Your task to perform on an android device: Go to Wikipedia Image 0: 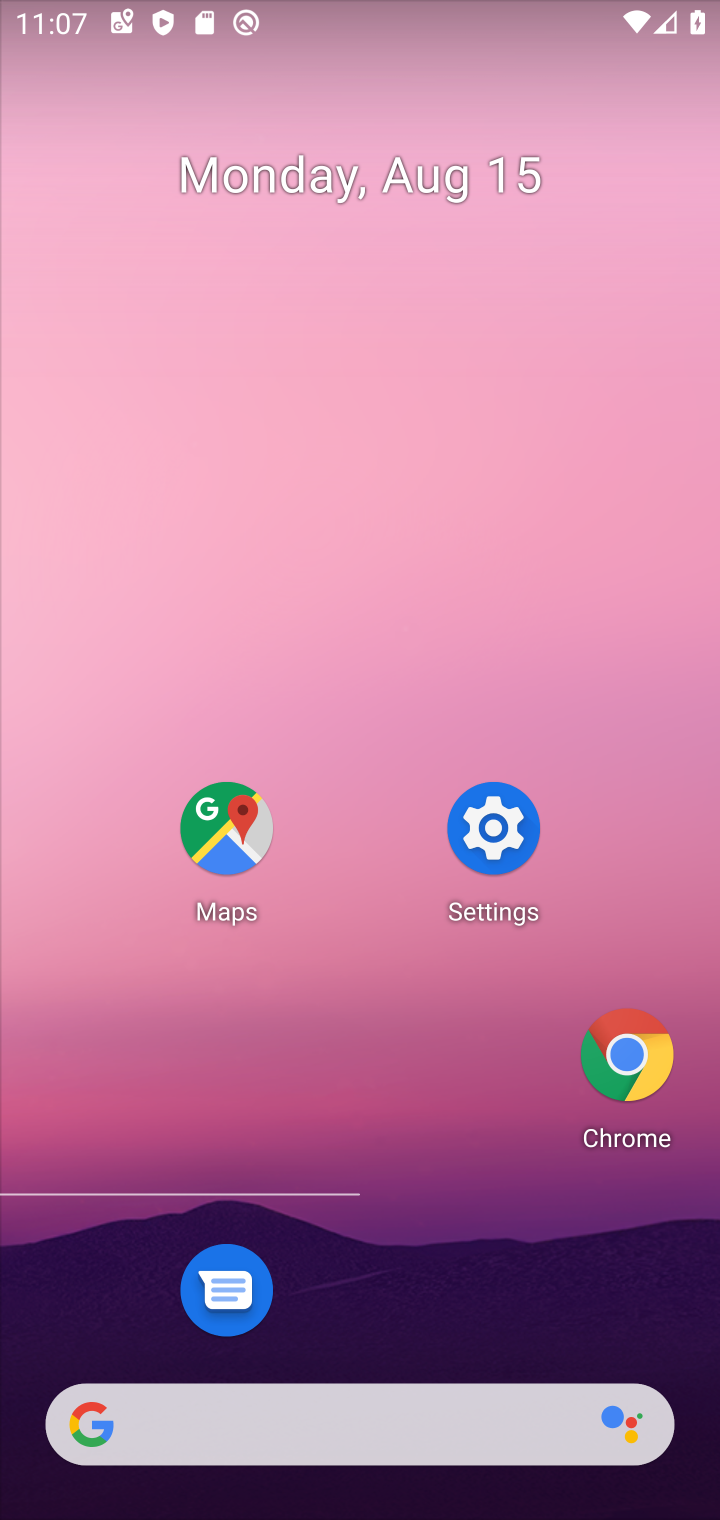
Step 0: click (627, 1070)
Your task to perform on an android device: Go to Wikipedia Image 1: 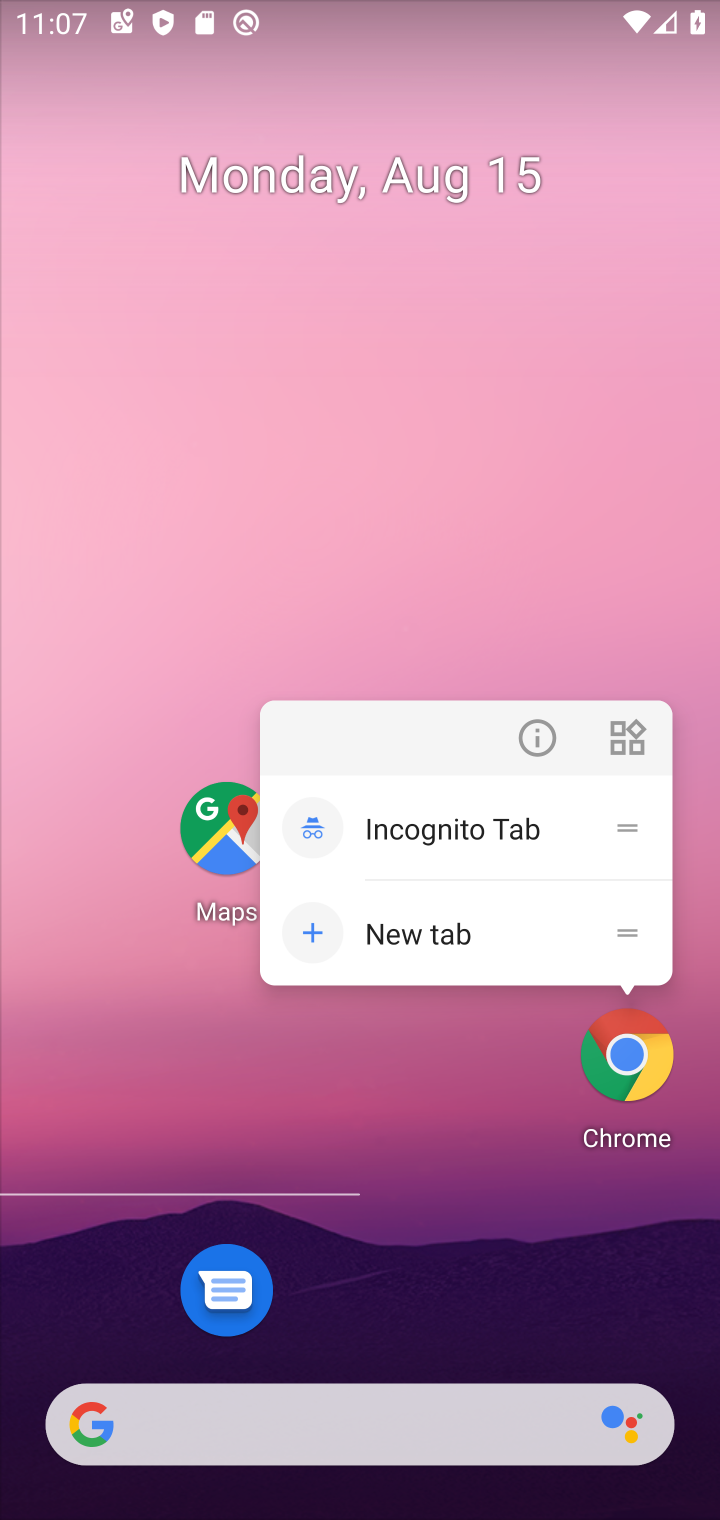
Step 1: click (625, 1084)
Your task to perform on an android device: Go to Wikipedia Image 2: 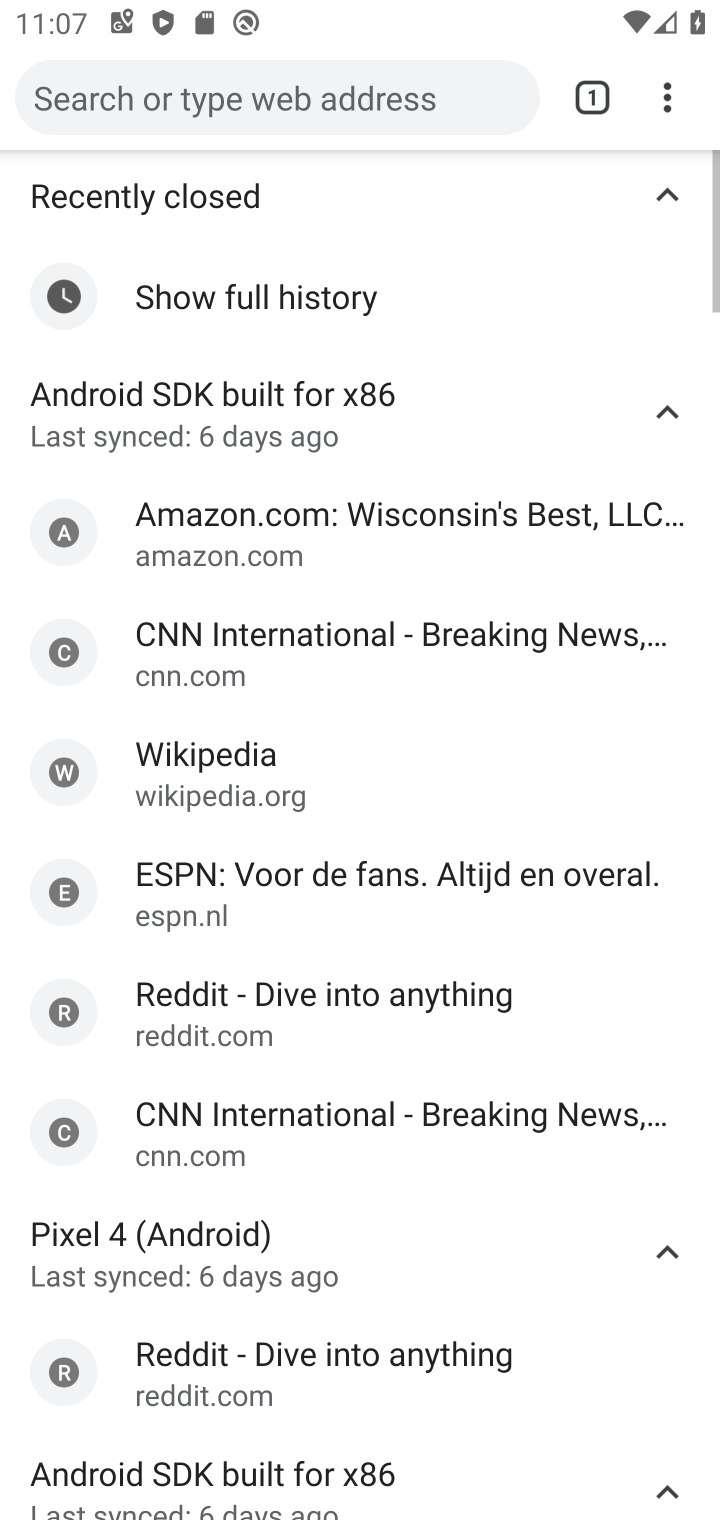
Step 2: drag from (667, 95) to (364, 199)
Your task to perform on an android device: Go to Wikipedia Image 3: 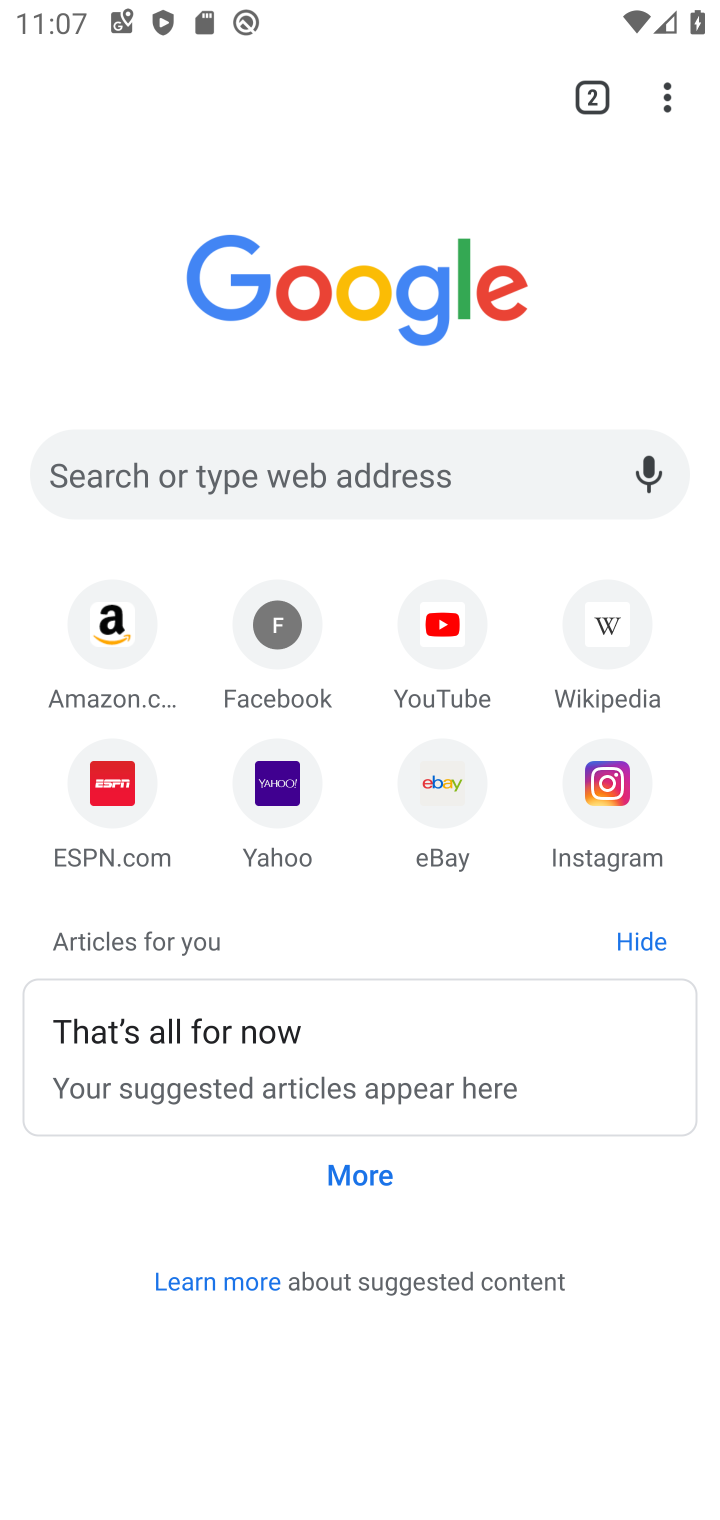
Step 3: click (614, 610)
Your task to perform on an android device: Go to Wikipedia Image 4: 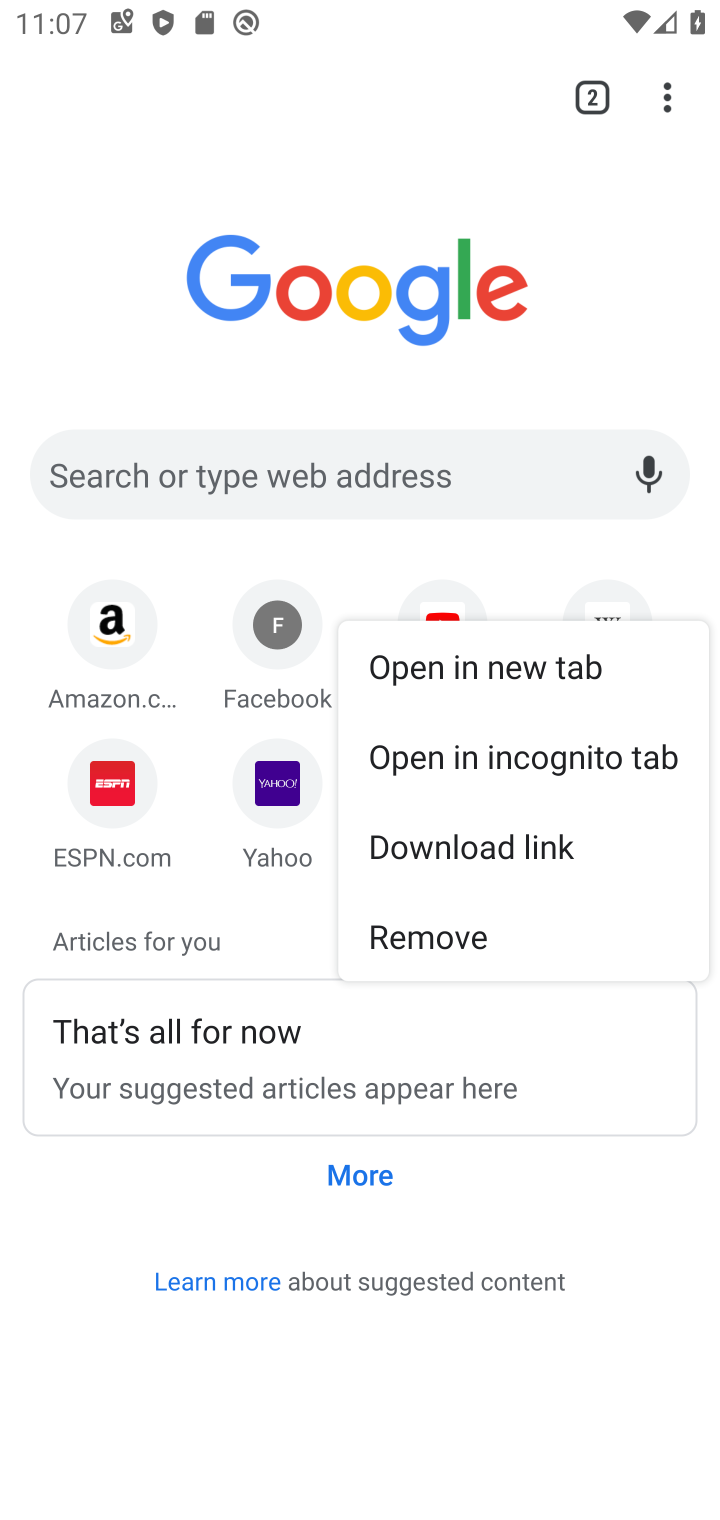
Step 4: click (605, 612)
Your task to perform on an android device: Go to Wikipedia Image 5: 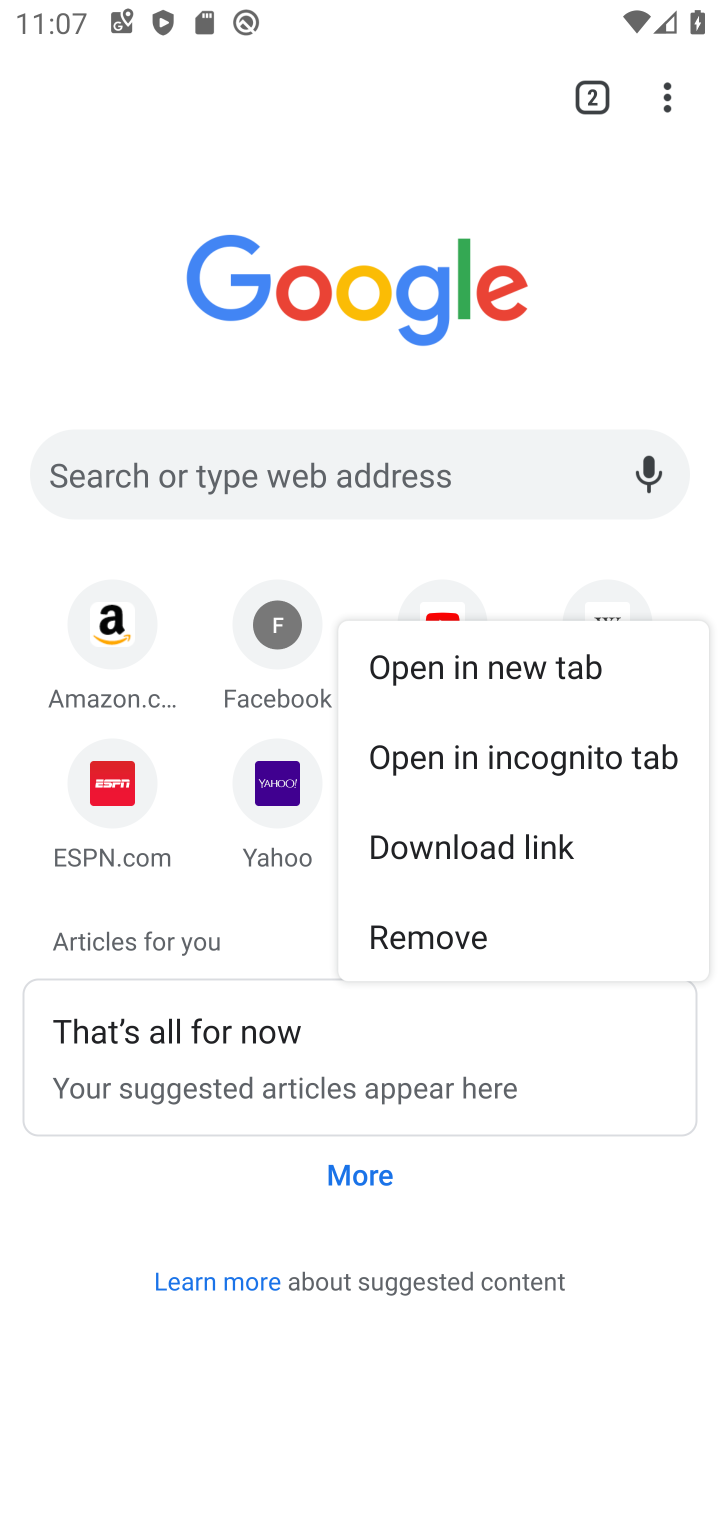
Step 5: click (603, 606)
Your task to perform on an android device: Go to Wikipedia Image 6: 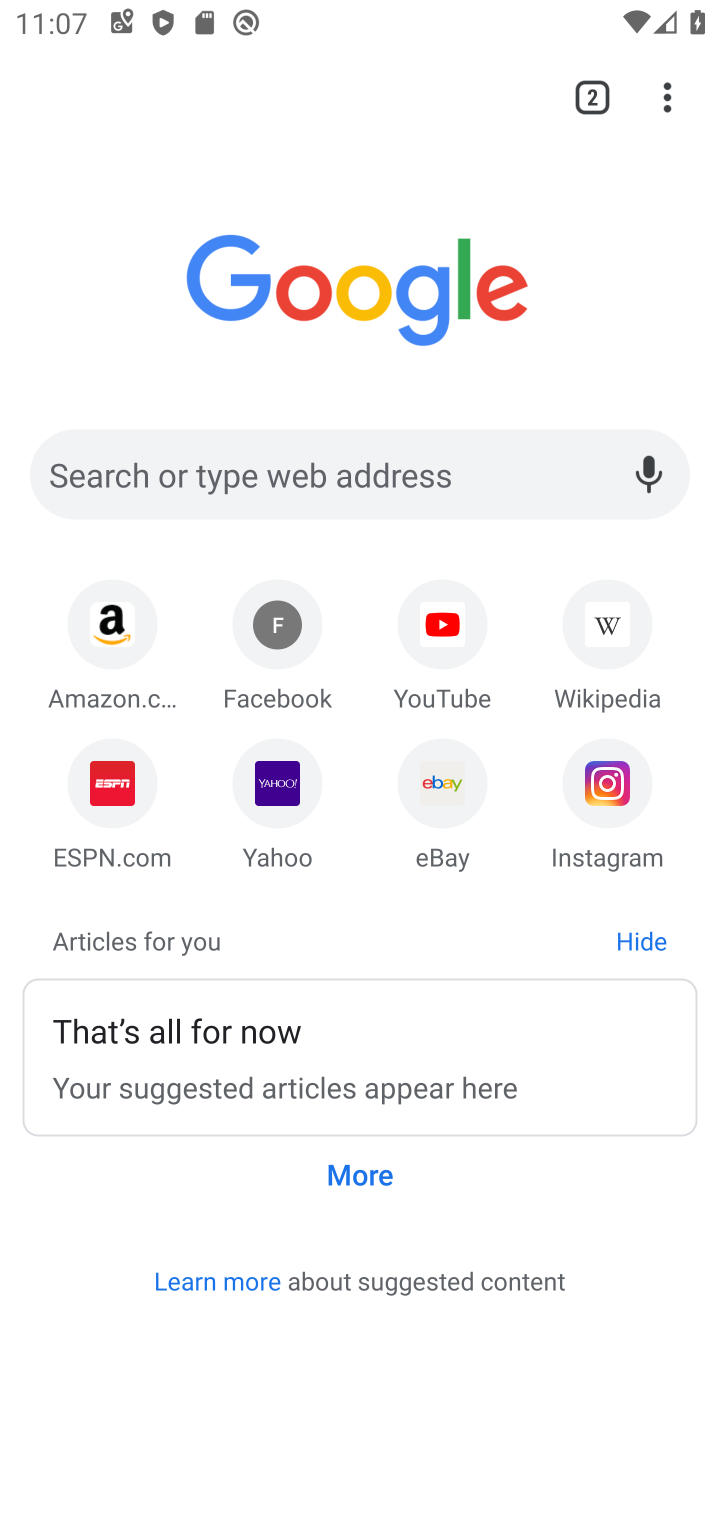
Step 6: click (612, 626)
Your task to perform on an android device: Go to Wikipedia Image 7: 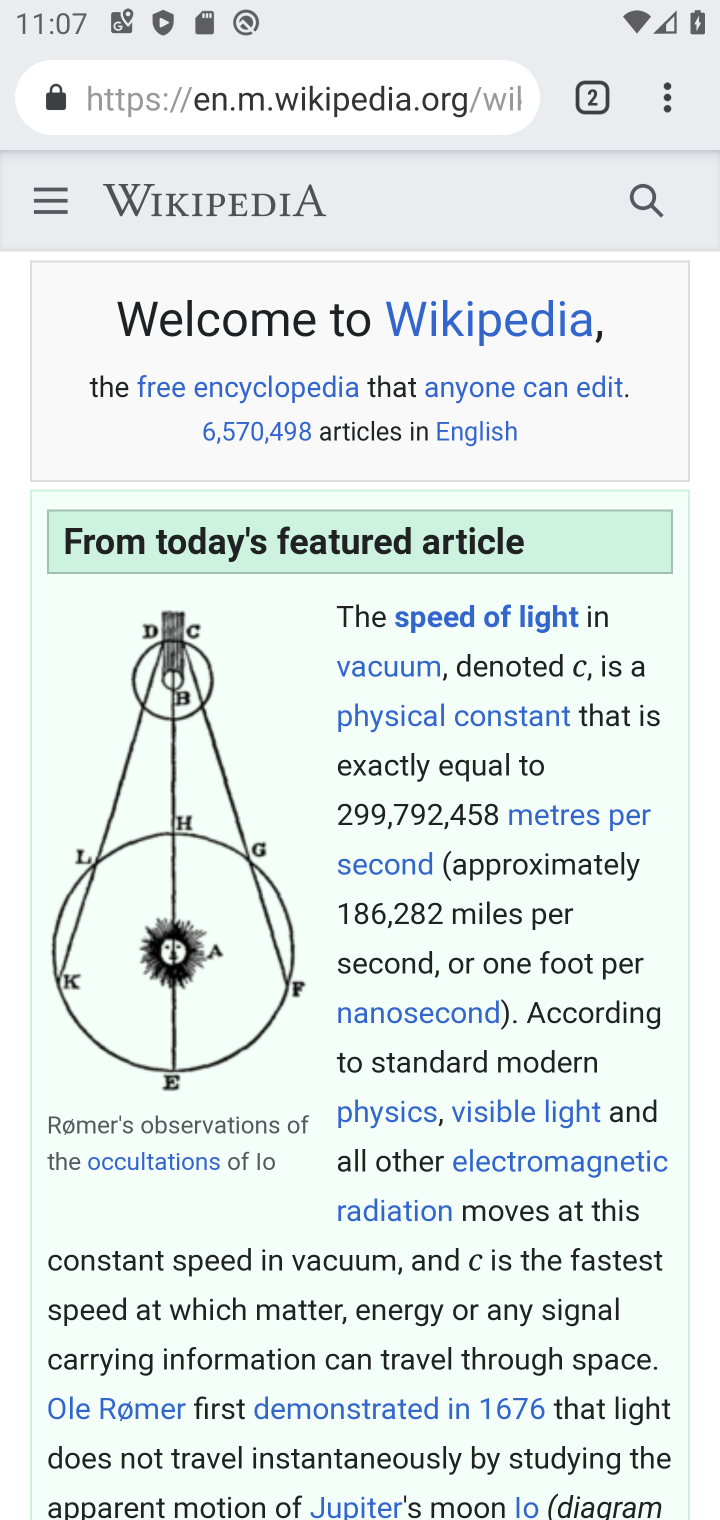
Step 7: task complete